Your task to perform on an android device: check android version Image 0: 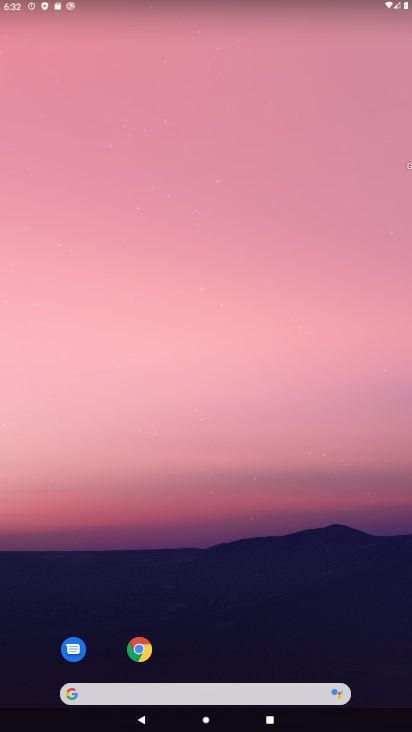
Step 0: click (222, 26)
Your task to perform on an android device: check android version Image 1: 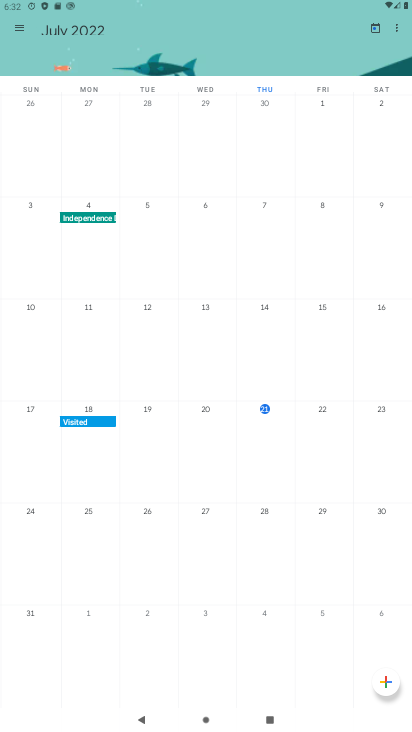
Step 1: press home button
Your task to perform on an android device: check android version Image 2: 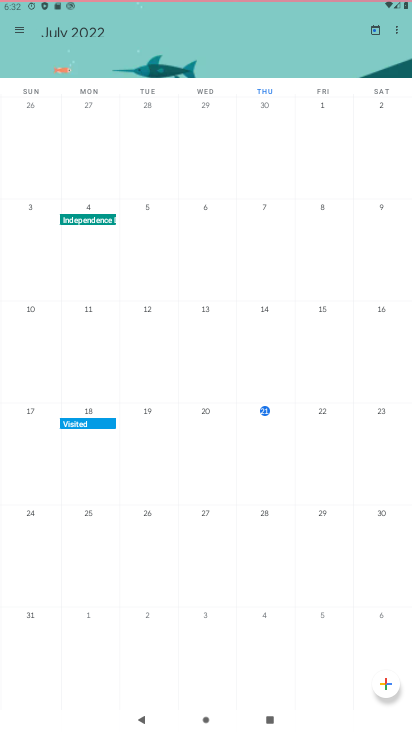
Step 2: drag from (393, 697) to (200, 2)
Your task to perform on an android device: check android version Image 3: 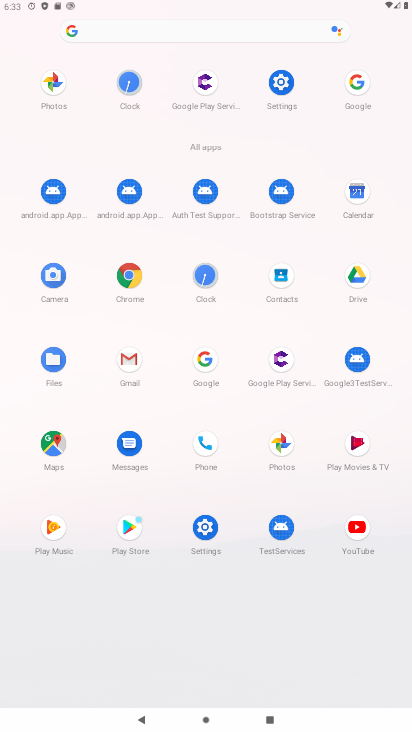
Step 3: click (275, 81)
Your task to perform on an android device: check android version Image 4: 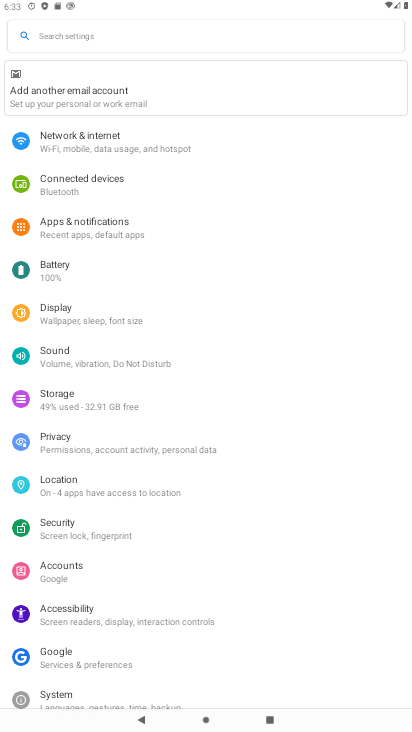
Step 4: drag from (154, 681) to (188, 36)
Your task to perform on an android device: check android version Image 5: 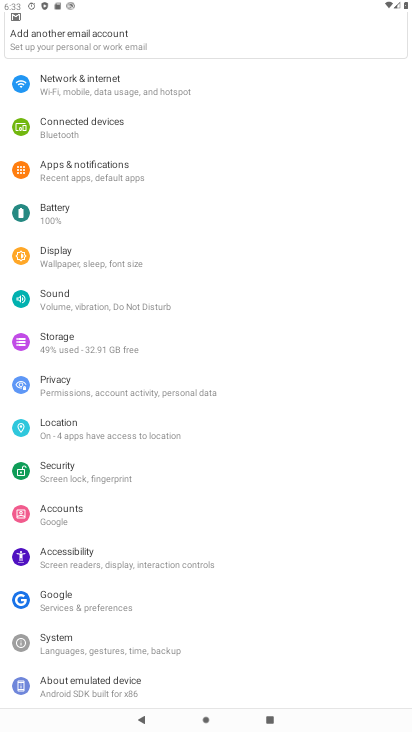
Step 5: click (103, 679)
Your task to perform on an android device: check android version Image 6: 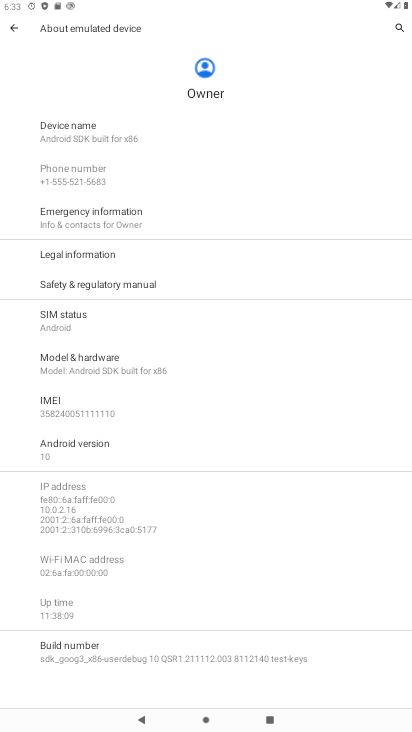
Step 6: click (74, 454)
Your task to perform on an android device: check android version Image 7: 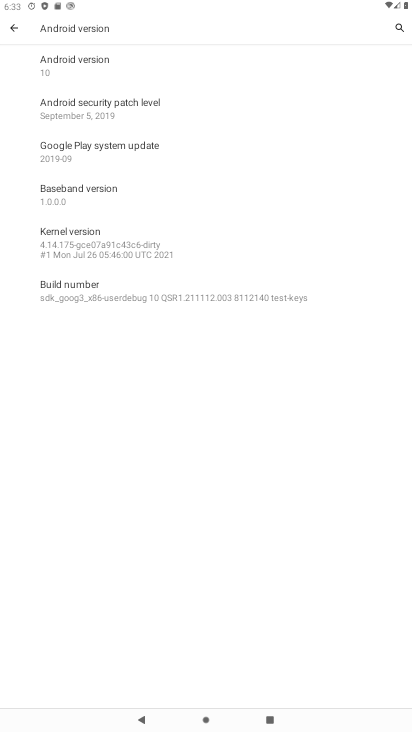
Step 7: task complete